Your task to perform on an android device: delete location history Image 0: 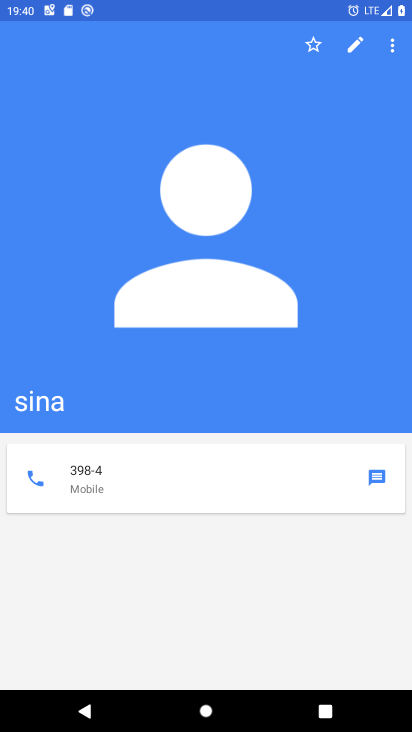
Step 0: press home button
Your task to perform on an android device: delete location history Image 1: 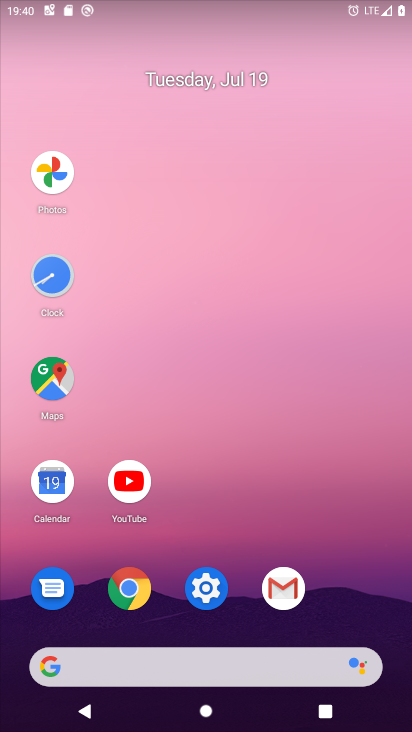
Step 1: click (46, 374)
Your task to perform on an android device: delete location history Image 2: 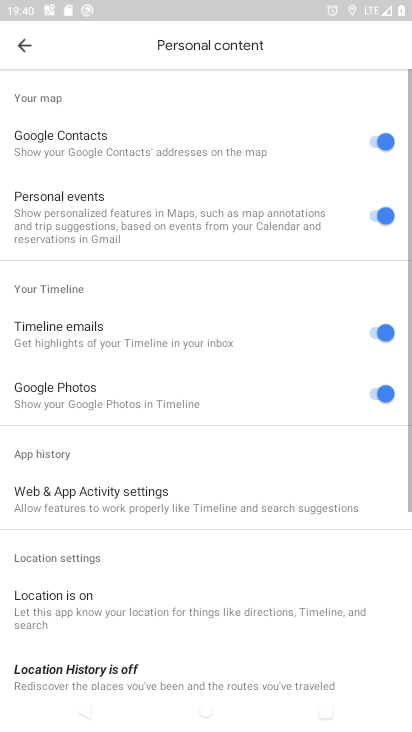
Step 2: drag from (208, 552) to (204, 309)
Your task to perform on an android device: delete location history Image 3: 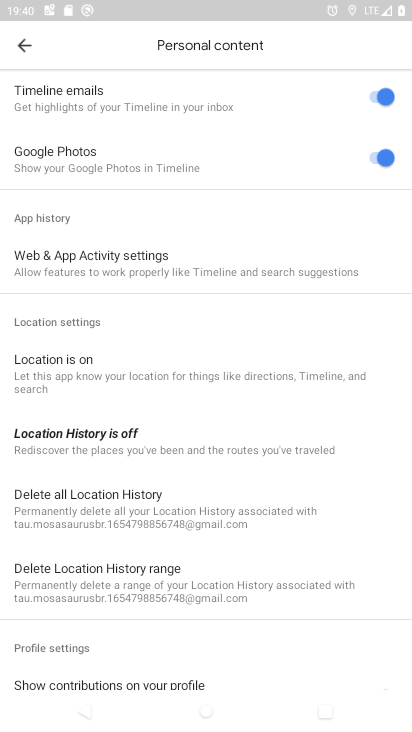
Step 3: click (94, 493)
Your task to perform on an android device: delete location history Image 4: 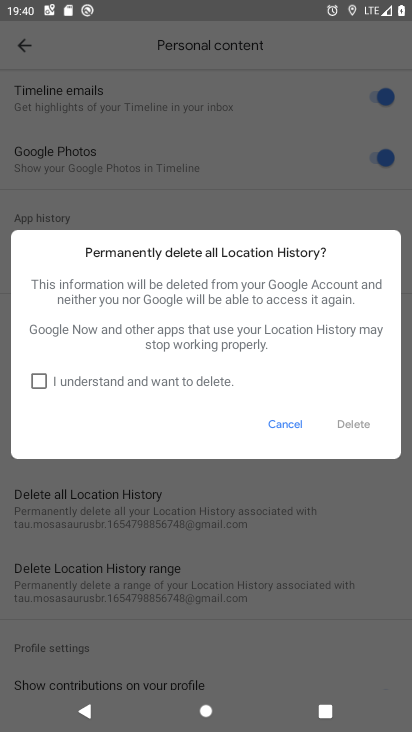
Step 4: click (26, 377)
Your task to perform on an android device: delete location history Image 5: 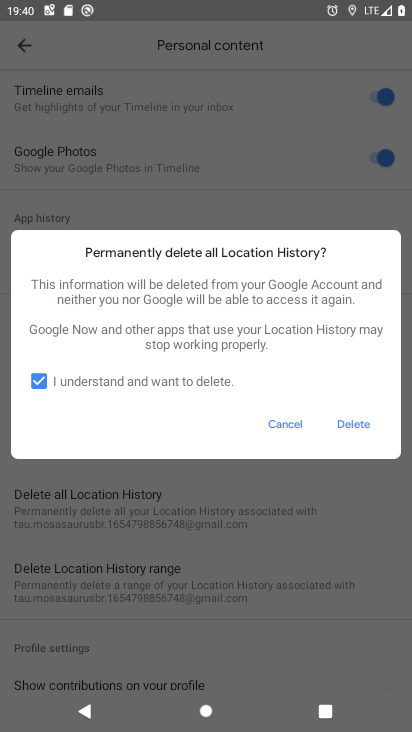
Step 5: click (354, 420)
Your task to perform on an android device: delete location history Image 6: 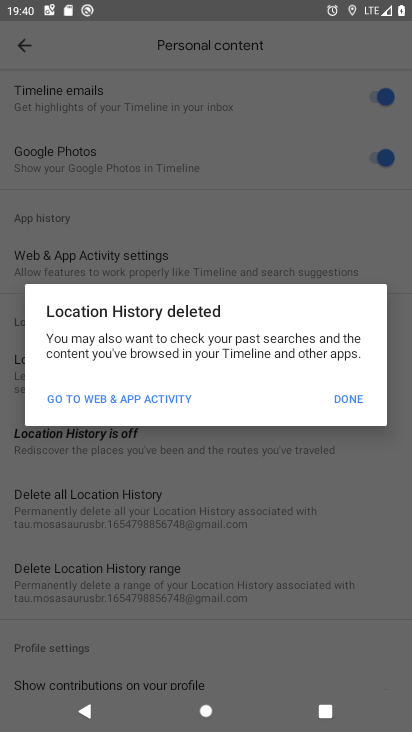
Step 6: click (351, 396)
Your task to perform on an android device: delete location history Image 7: 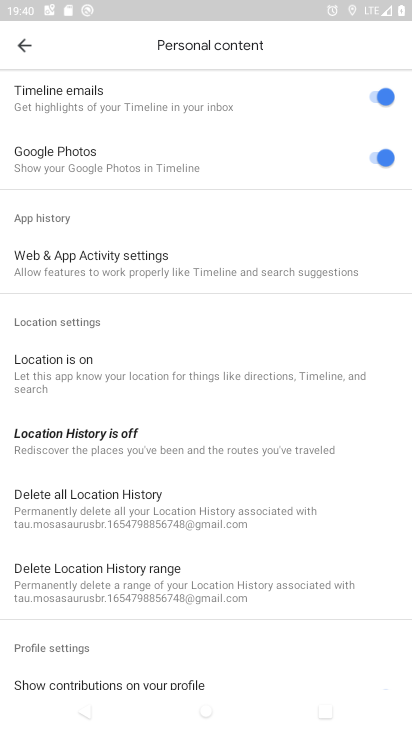
Step 7: task complete